Your task to perform on an android device: uninstall "Messenger Lite" Image 0: 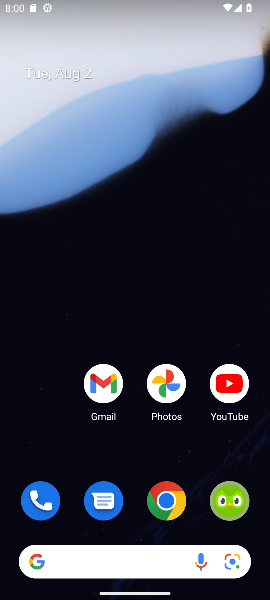
Step 0: drag from (120, 597) to (184, 183)
Your task to perform on an android device: uninstall "Messenger Lite" Image 1: 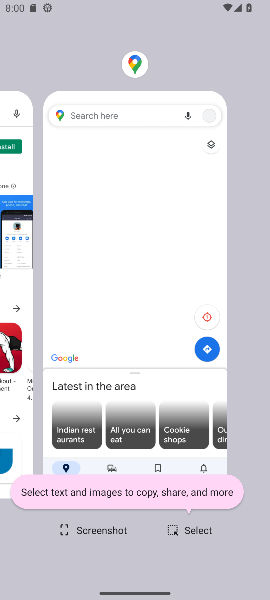
Step 1: press back button
Your task to perform on an android device: uninstall "Messenger Lite" Image 2: 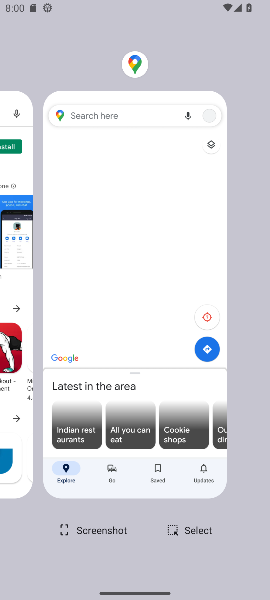
Step 2: press back button
Your task to perform on an android device: uninstall "Messenger Lite" Image 3: 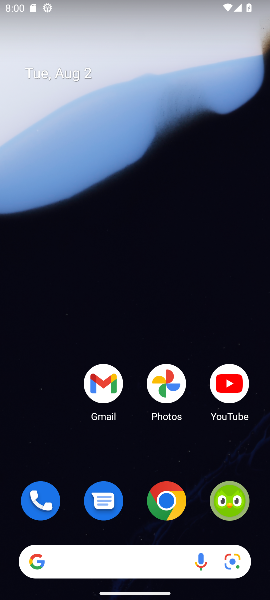
Step 3: drag from (163, 465) to (193, 84)
Your task to perform on an android device: uninstall "Messenger Lite" Image 4: 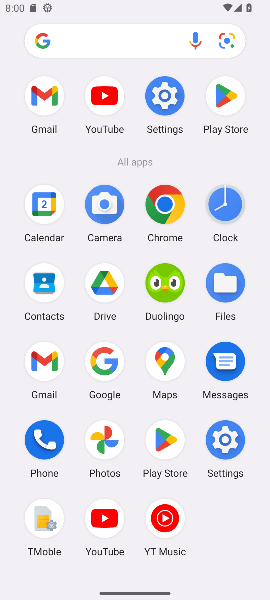
Step 4: click (229, 97)
Your task to perform on an android device: uninstall "Messenger Lite" Image 5: 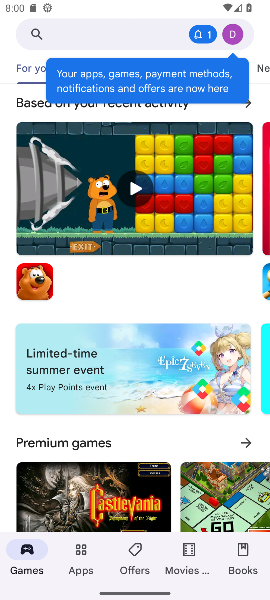
Step 5: click (92, 29)
Your task to perform on an android device: uninstall "Messenger Lite" Image 6: 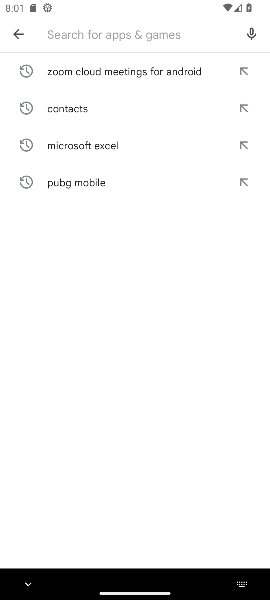
Step 6: type "Messenger Lite"
Your task to perform on an android device: uninstall "Messenger Lite" Image 7: 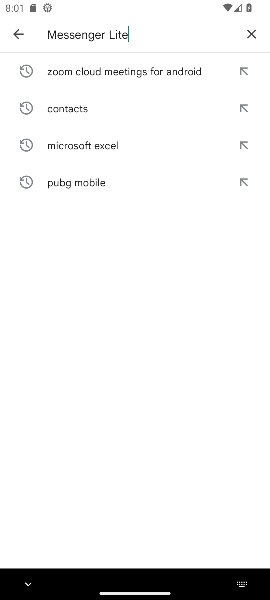
Step 7: type ""
Your task to perform on an android device: uninstall "Messenger Lite" Image 8: 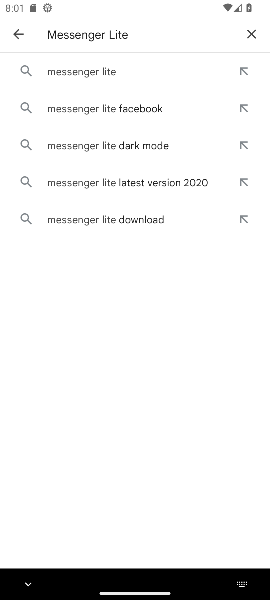
Step 8: click (136, 75)
Your task to perform on an android device: uninstall "Messenger Lite" Image 9: 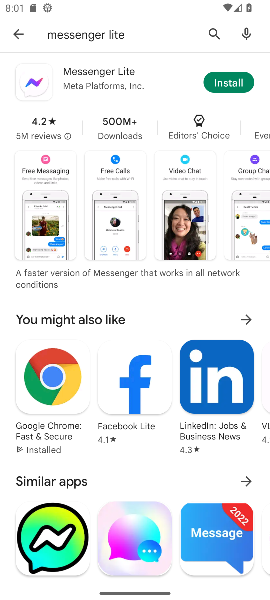
Step 9: task complete